Your task to perform on an android device: allow notifications from all sites in the chrome app Image 0: 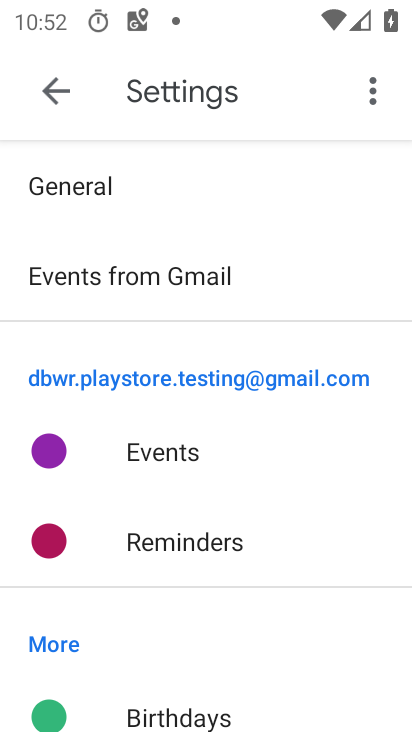
Step 0: press home button
Your task to perform on an android device: allow notifications from all sites in the chrome app Image 1: 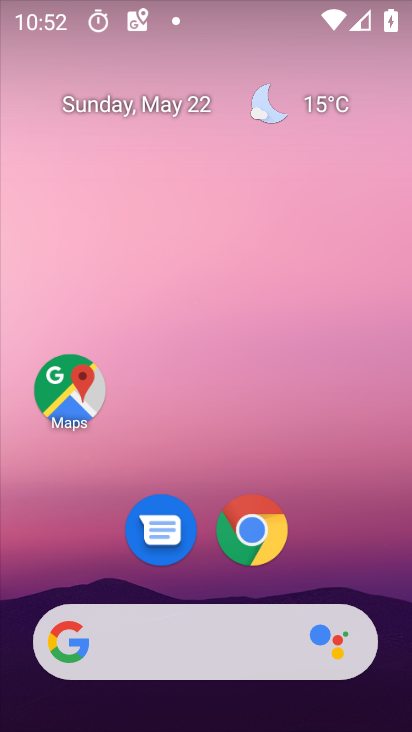
Step 1: click (252, 533)
Your task to perform on an android device: allow notifications from all sites in the chrome app Image 2: 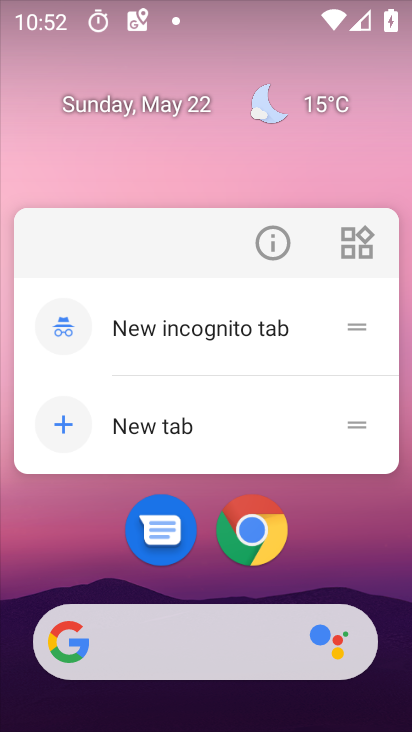
Step 2: click (255, 520)
Your task to perform on an android device: allow notifications from all sites in the chrome app Image 3: 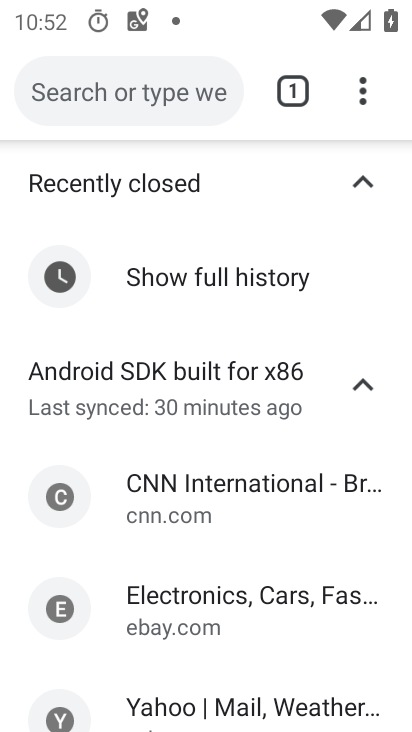
Step 3: click (365, 86)
Your task to perform on an android device: allow notifications from all sites in the chrome app Image 4: 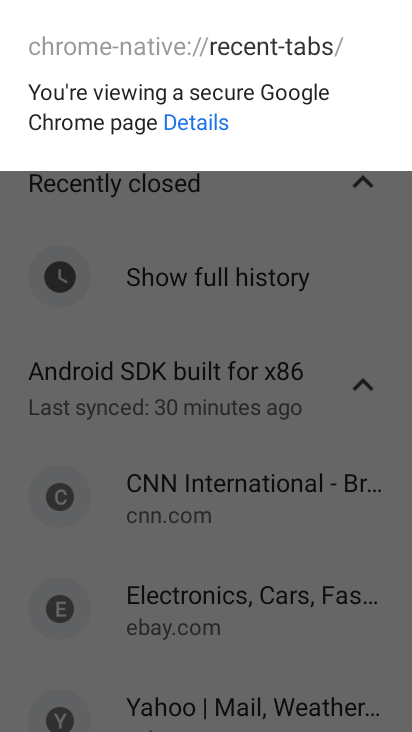
Step 4: press back button
Your task to perform on an android device: allow notifications from all sites in the chrome app Image 5: 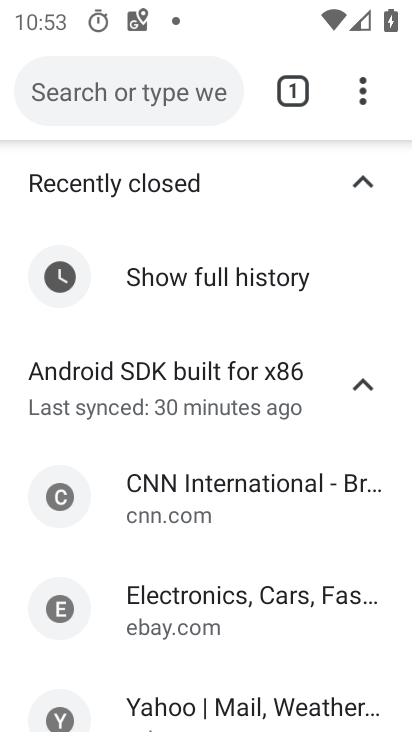
Step 5: press back button
Your task to perform on an android device: allow notifications from all sites in the chrome app Image 6: 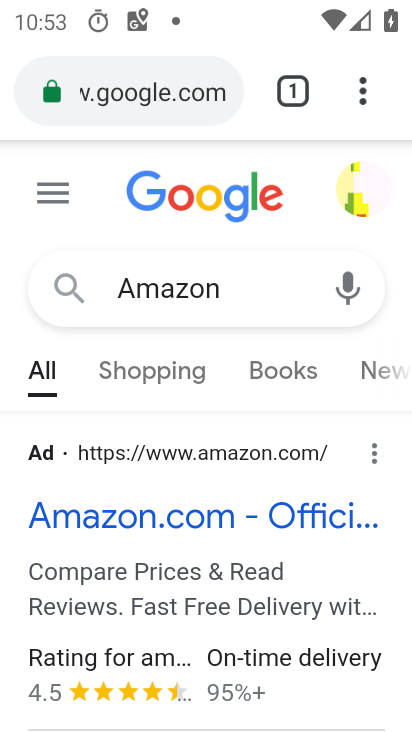
Step 6: click (356, 81)
Your task to perform on an android device: allow notifications from all sites in the chrome app Image 7: 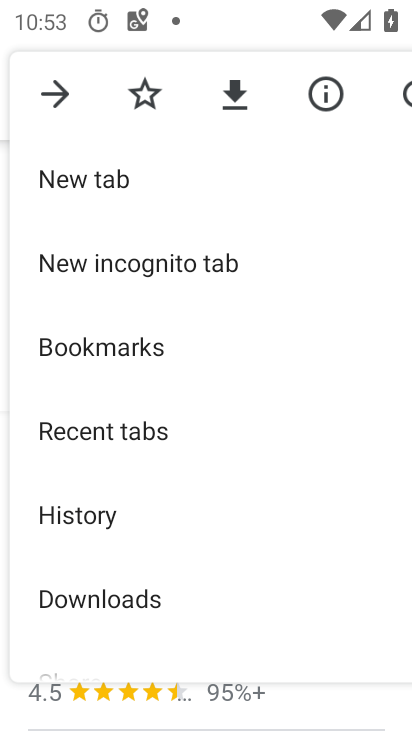
Step 7: drag from (266, 600) to (279, 324)
Your task to perform on an android device: allow notifications from all sites in the chrome app Image 8: 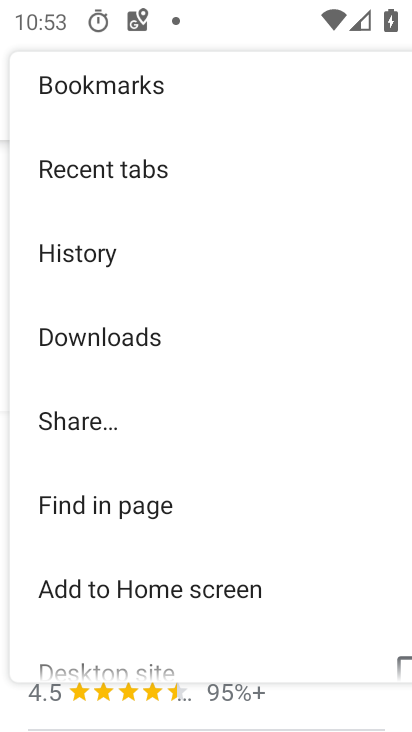
Step 8: drag from (293, 609) to (266, 306)
Your task to perform on an android device: allow notifications from all sites in the chrome app Image 9: 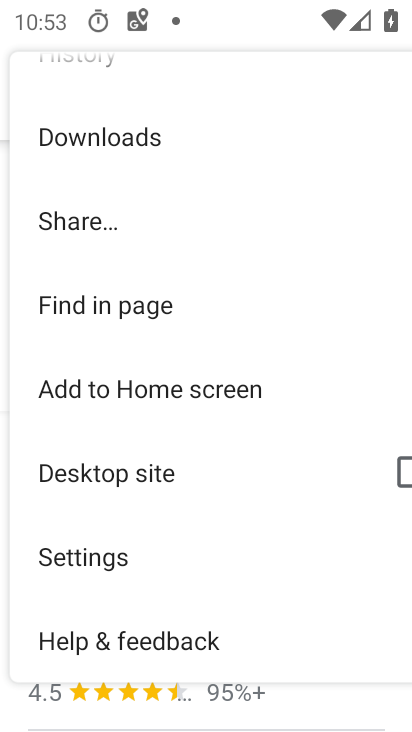
Step 9: click (74, 557)
Your task to perform on an android device: allow notifications from all sites in the chrome app Image 10: 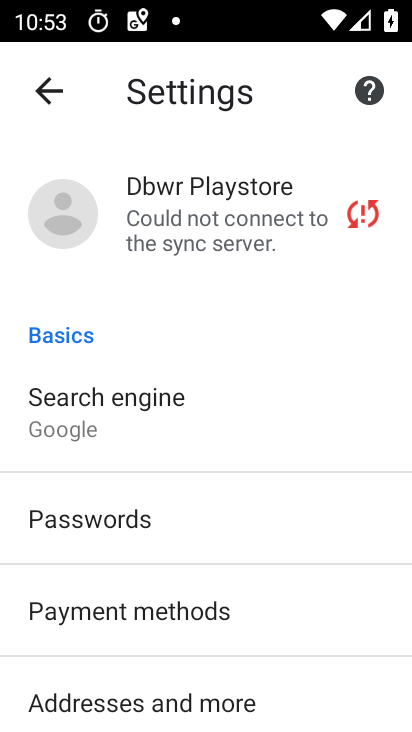
Step 10: drag from (289, 699) to (267, 348)
Your task to perform on an android device: allow notifications from all sites in the chrome app Image 11: 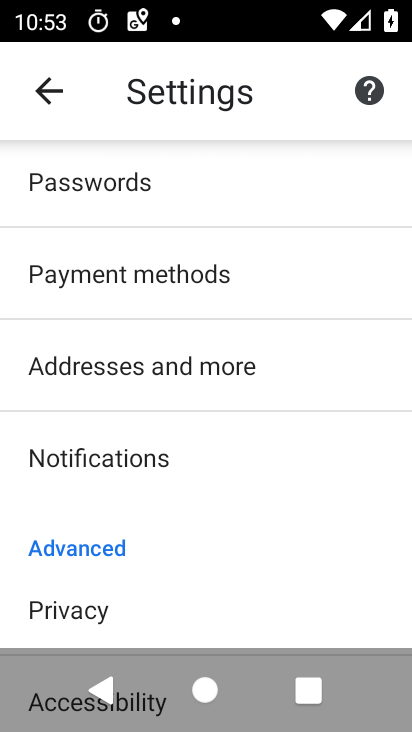
Step 11: drag from (231, 602) to (236, 353)
Your task to perform on an android device: allow notifications from all sites in the chrome app Image 12: 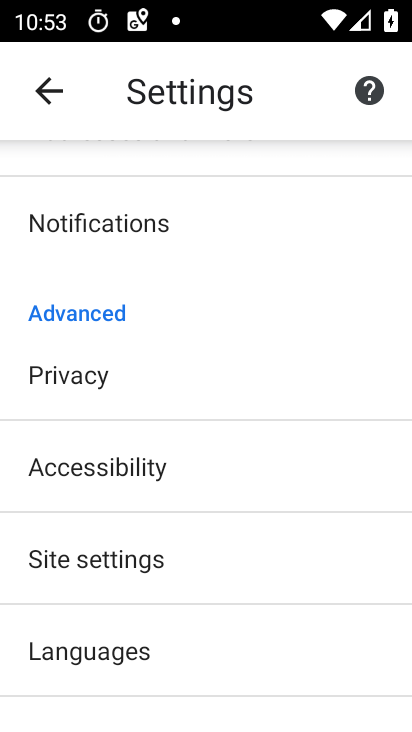
Step 12: drag from (238, 673) to (260, 383)
Your task to perform on an android device: allow notifications from all sites in the chrome app Image 13: 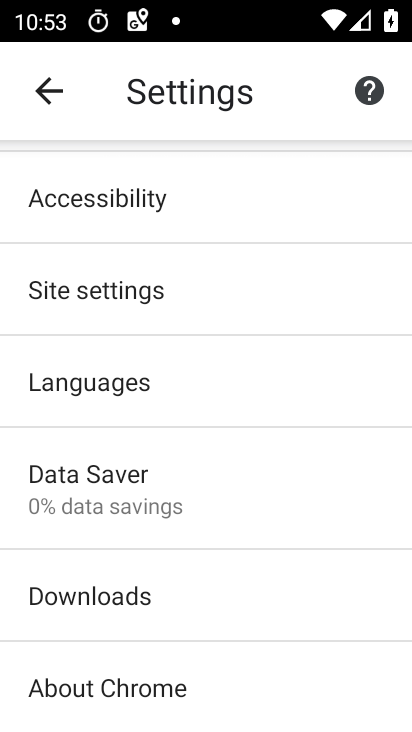
Step 13: drag from (234, 205) to (305, 452)
Your task to perform on an android device: allow notifications from all sites in the chrome app Image 14: 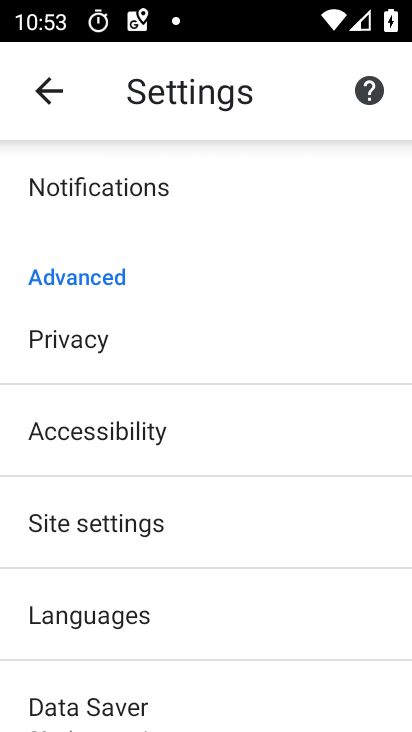
Step 14: click (84, 187)
Your task to perform on an android device: allow notifications from all sites in the chrome app Image 15: 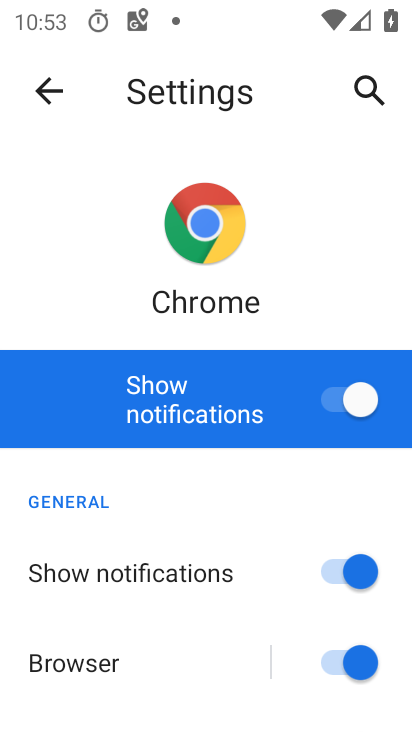
Step 15: task complete